Your task to perform on an android device: clear all cookies in the chrome app Image 0: 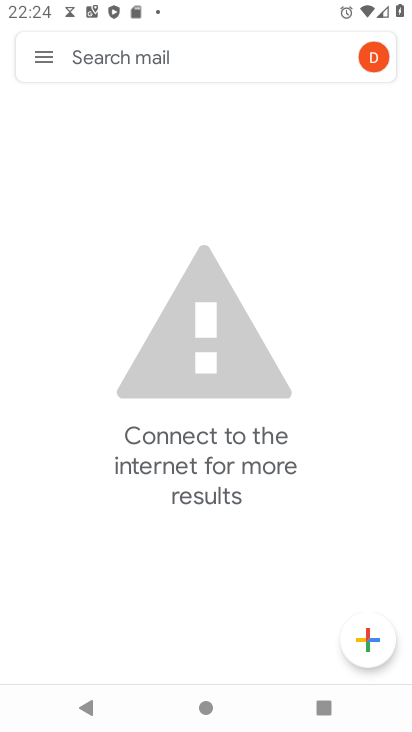
Step 0: press home button
Your task to perform on an android device: clear all cookies in the chrome app Image 1: 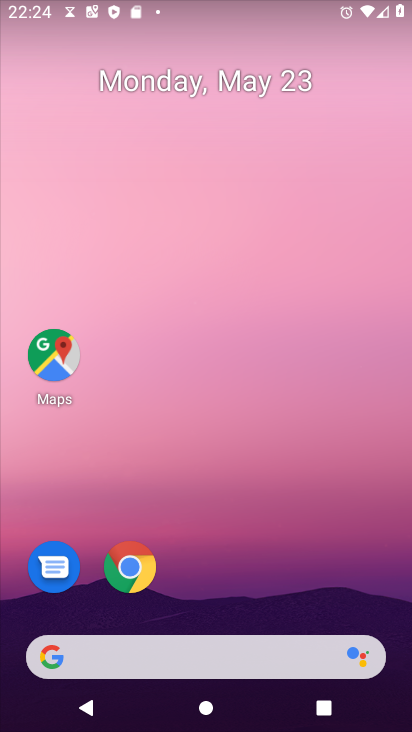
Step 1: drag from (181, 583) to (196, 222)
Your task to perform on an android device: clear all cookies in the chrome app Image 2: 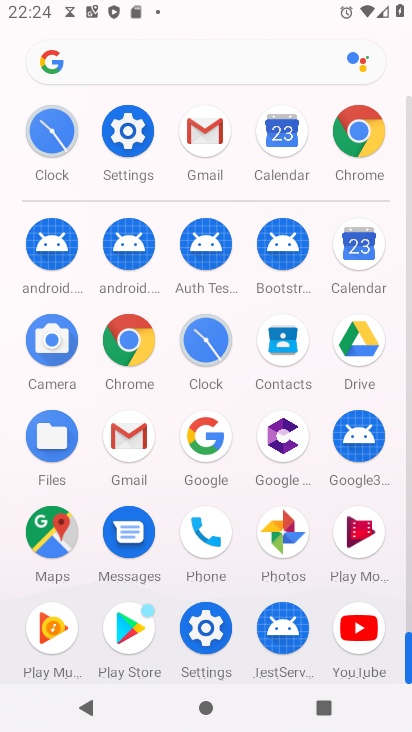
Step 2: click (137, 122)
Your task to perform on an android device: clear all cookies in the chrome app Image 3: 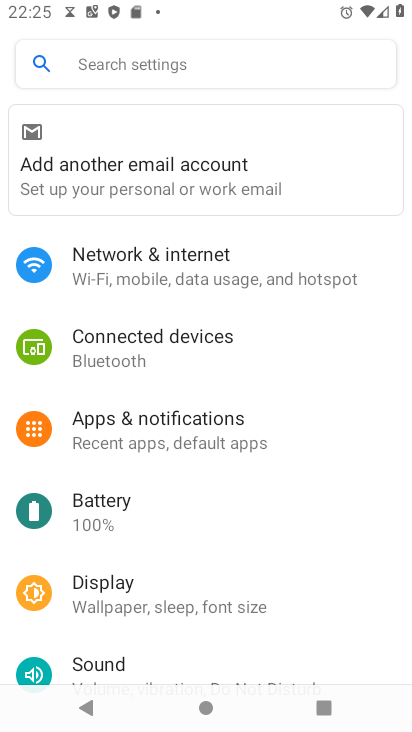
Step 3: press home button
Your task to perform on an android device: clear all cookies in the chrome app Image 4: 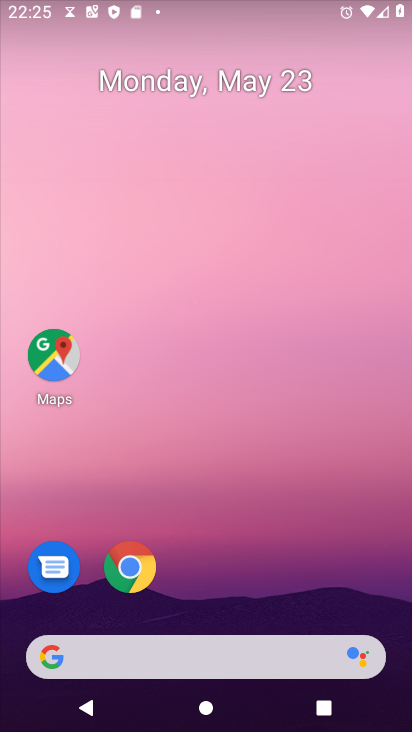
Step 4: drag from (261, 579) to (240, 252)
Your task to perform on an android device: clear all cookies in the chrome app Image 5: 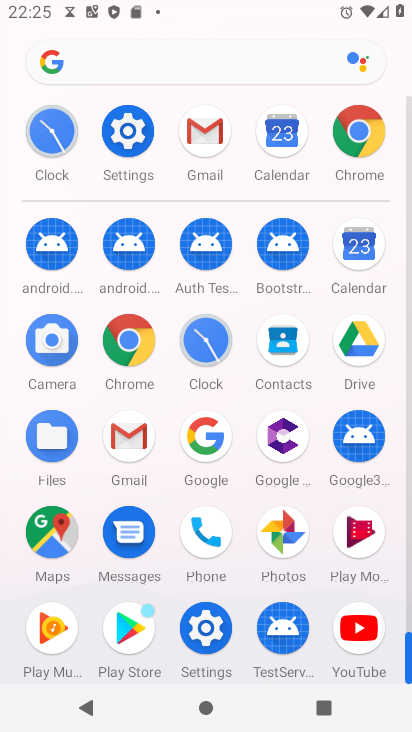
Step 5: click (368, 124)
Your task to perform on an android device: clear all cookies in the chrome app Image 6: 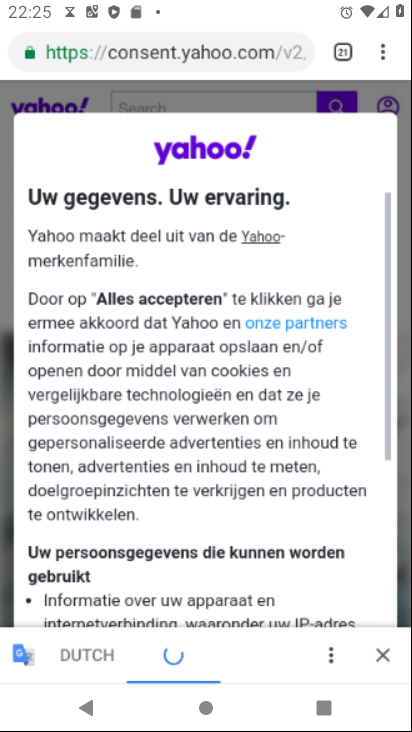
Step 6: click (373, 63)
Your task to perform on an android device: clear all cookies in the chrome app Image 7: 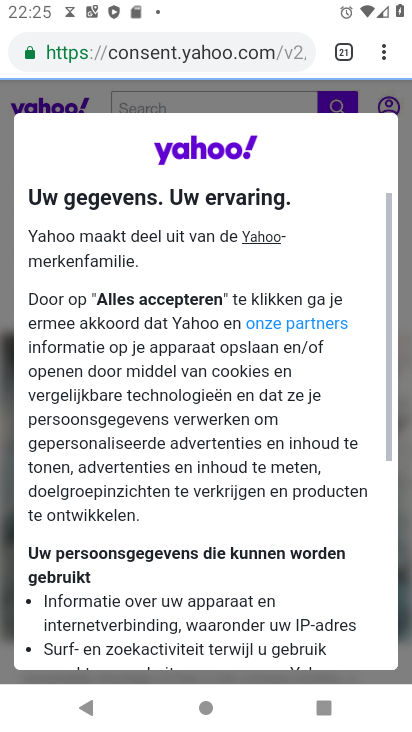
Step 7: click (381, 49)
Your task to perform on an android device: clear all cookies in the chrome app Image 8: 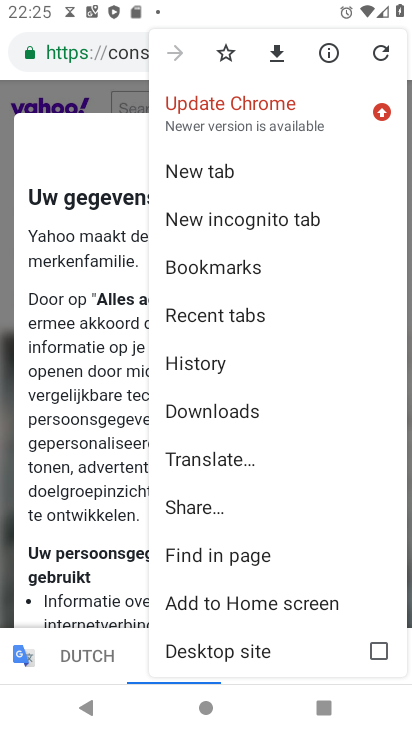
Step 8: drag from (239, 593) to (263, 304)
Your task to perform on an android device: clear all cookies in the chrome app Image 9: 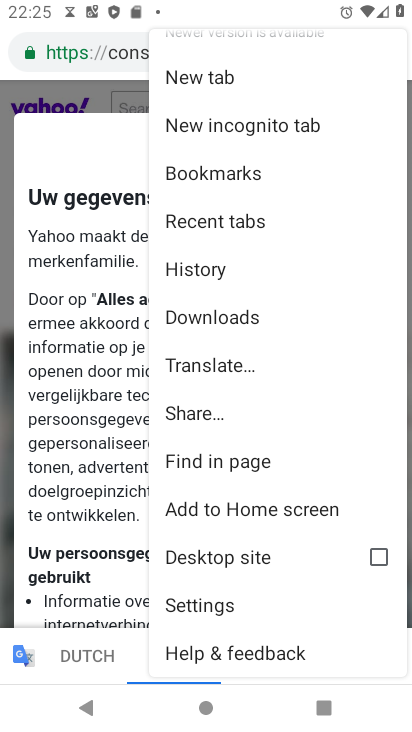
Step 9: click (209, 596)
Your task to perform on an android device: clear all cookies in the chrome app Image 10: 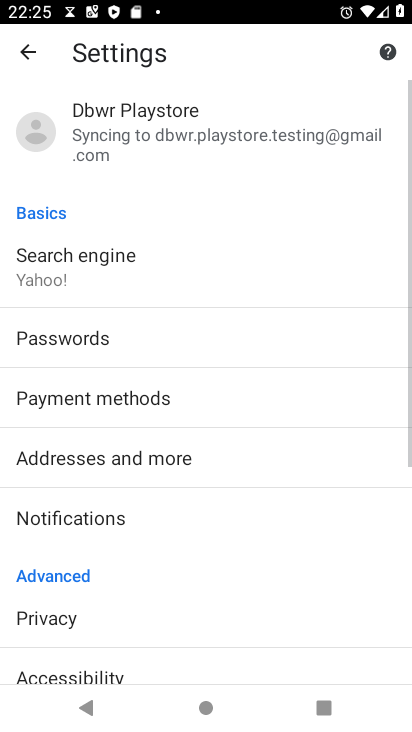
Step 10: drag from (220, 545) to (250, 210)
Your task to perform on an android device: clear all cookies in the chrome app Image 11: 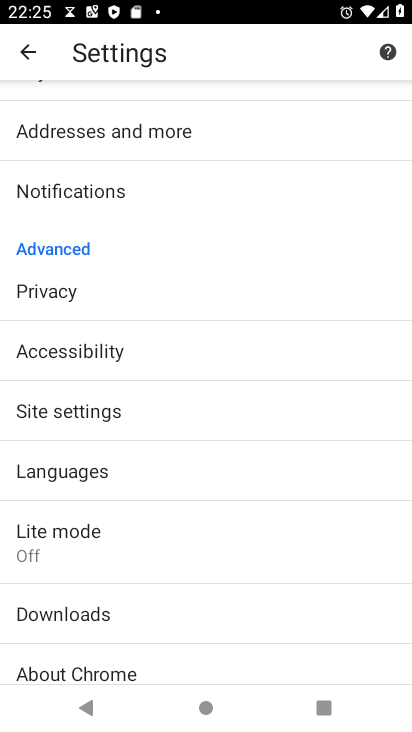
Step 11: drag from (212, 240) to (238, 465)
Your task to perform on an android device: clear all cookies in the chrome app Image 12: 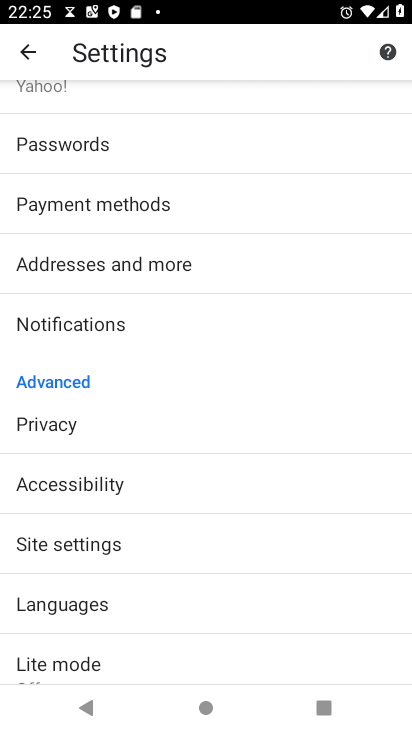
Step 12: drag from (230, 629) to (260, 352)
Your task to perform on an android device: clear all cookies in the chrome app Image 13: 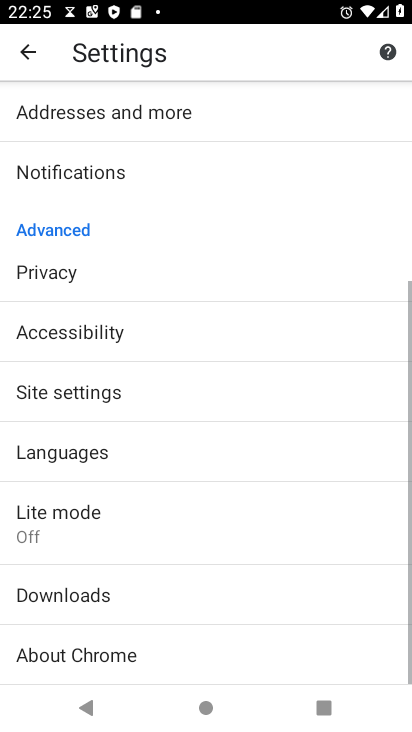
Step 13: click (136, 377)
Your task to perform on an android device: clear all cookies in the chrome app Image 14: 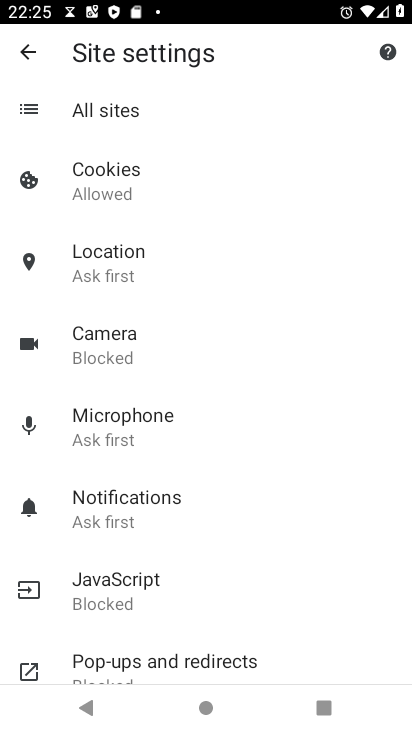
Step 14: click (143, 173)
Your task to perform on an android device: clear all cookies in the chrome app Image 15: 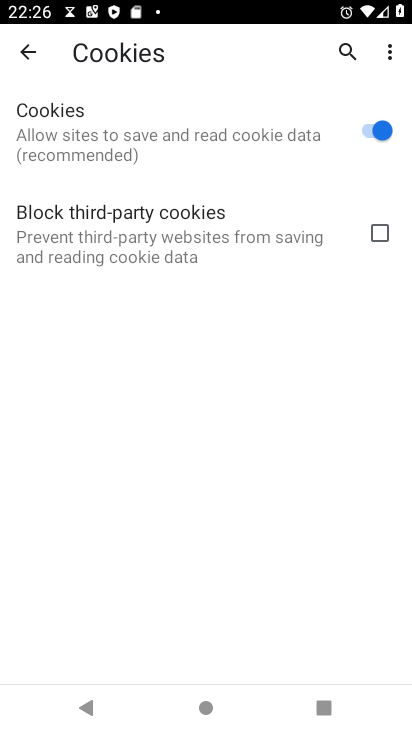
Step 15: task complete